Your task to perform on an android device: Open wifi settings Image 0: 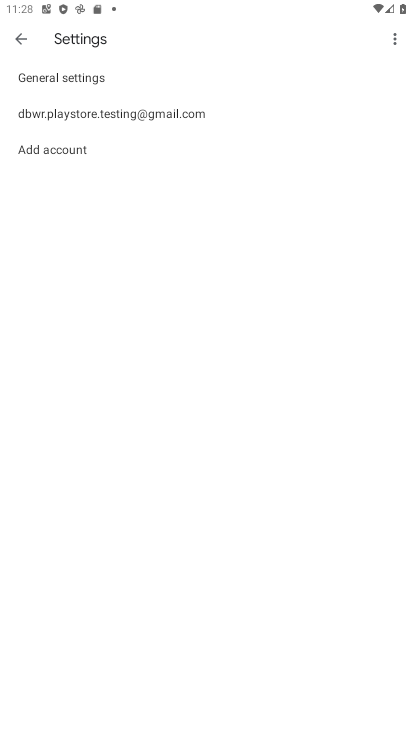
Step 0: press home button
Your task to perform on an android device: Open wifi settings Image 1: 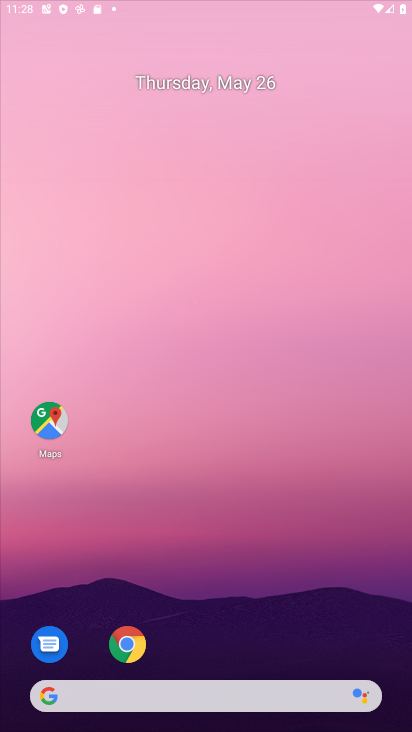
Step 1: drag from (330, 601) to (274, 45)
Your task to perform on an android device: Open wifi settings Image 2: 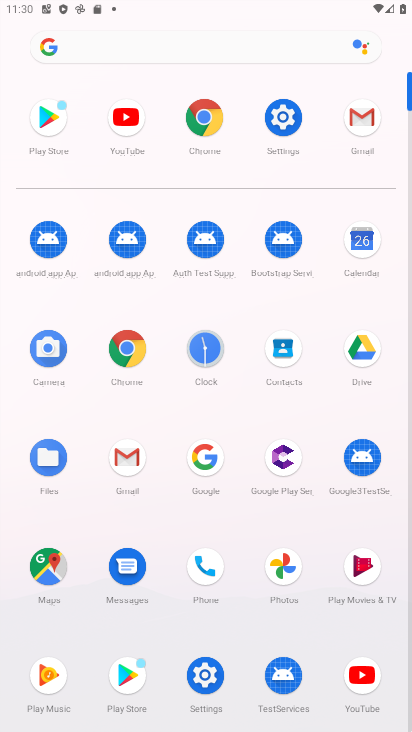
Step 2: click (219, 675)
Your task to perform on an android device: Open wifi settings Image 3: 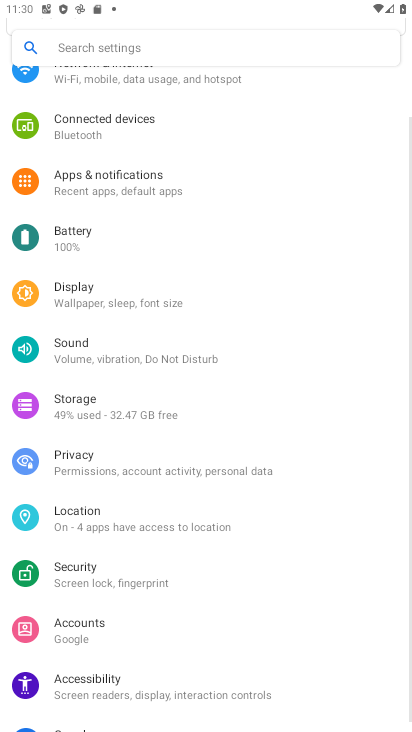
Step 3: drag from (202, 110) to (218, 670)
Your task to perform on an android device: Open wifi settings Image 4: 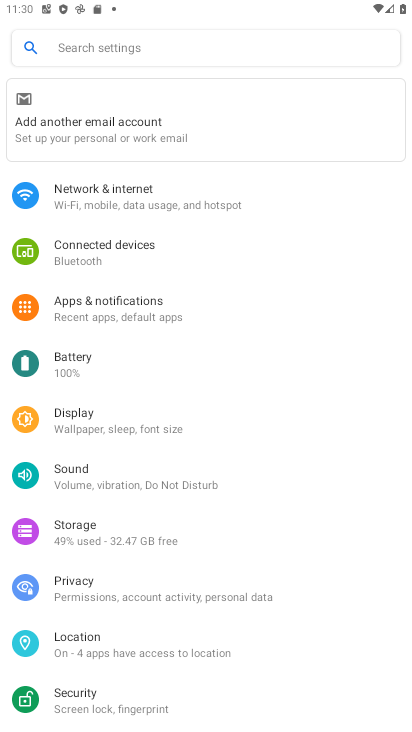
Step 4: click (171, 189)
Your task to perform on an android device: Open wifi settings Image 5: 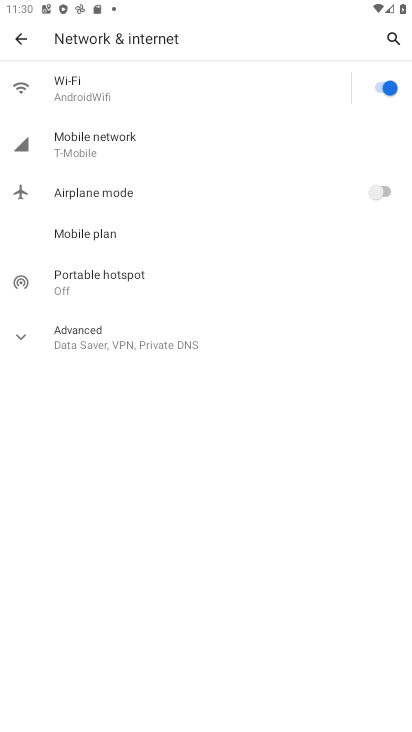
Step 5: click (203, 100)
Your task to perform on an android device: Open wifi settings Image 6: 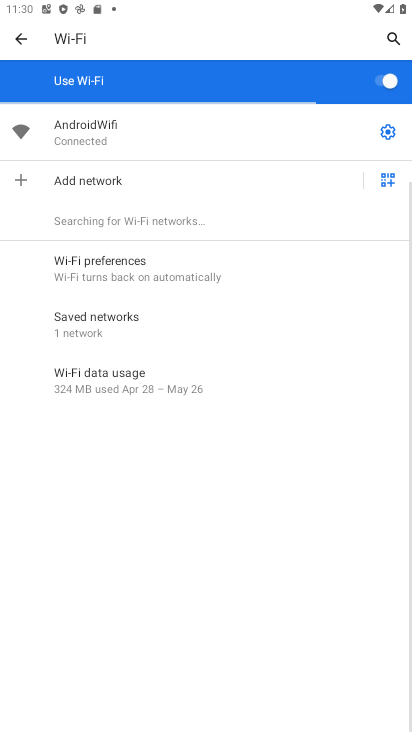
Step 6: task complete